Your task to perform on an android device: Search for pizza restaurants on Maps Image 0: 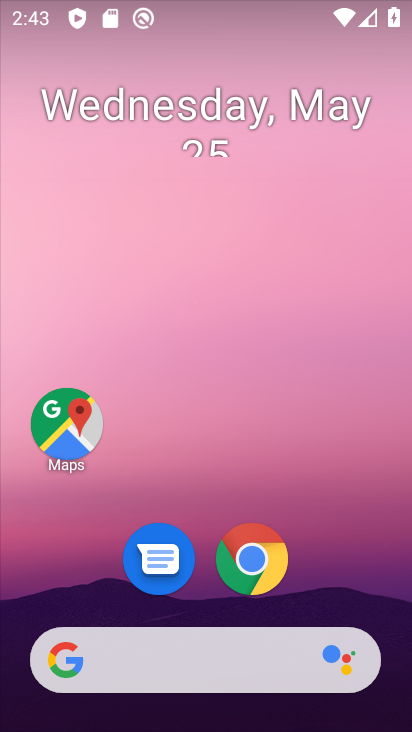
Step 0: click (68, 418)
Your task to perform on an android device: Search for pizza restaurants on Maps Image 1: 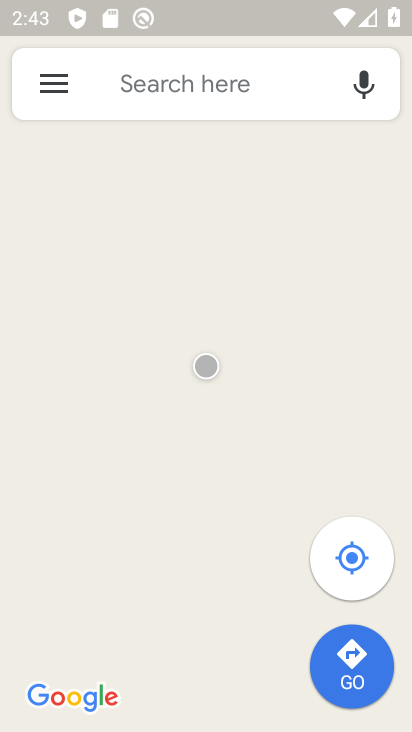
Step 1: click (165, 75)
Your task to perform on an android device: Search for pizza restaurants on Maps Image 2: 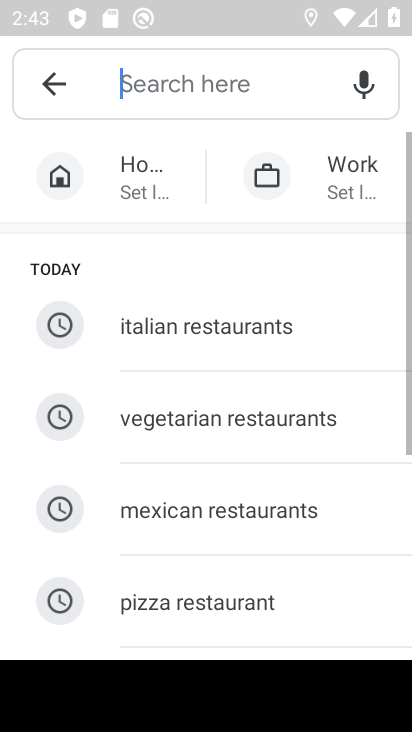
Step 2: type "pizza"
Your task to perform on an android device: Search for pizza restaurants on Maps Image 3: 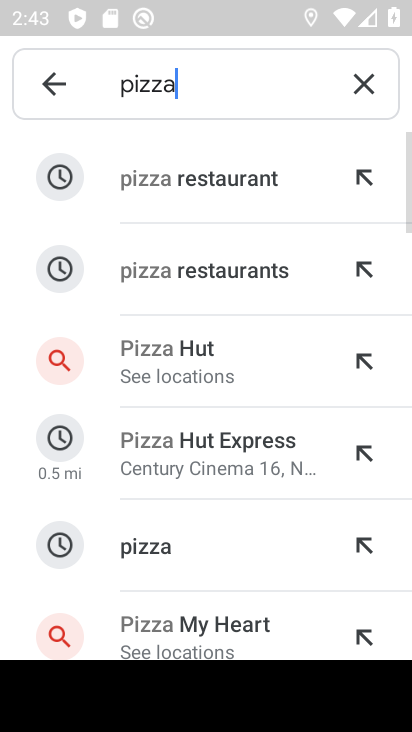
Step 3: click (204, 201)
Your task to perform on an android device: Search for pizza restaurants on Maps Image 4: 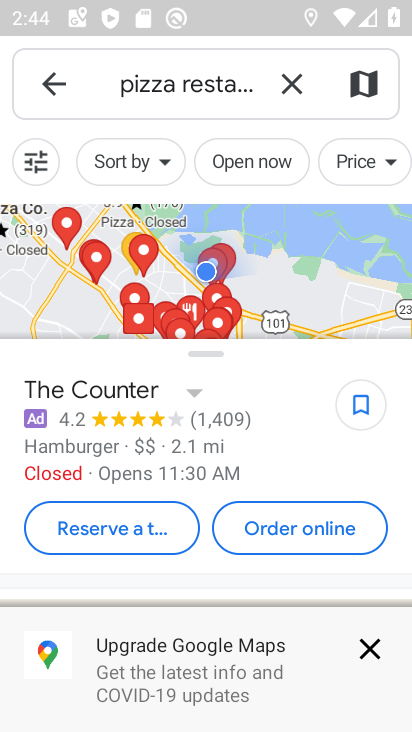
Step 4: click (367, 645)
Your task to perform on an android device: Search for pizza restaurants on Maps Image 5: 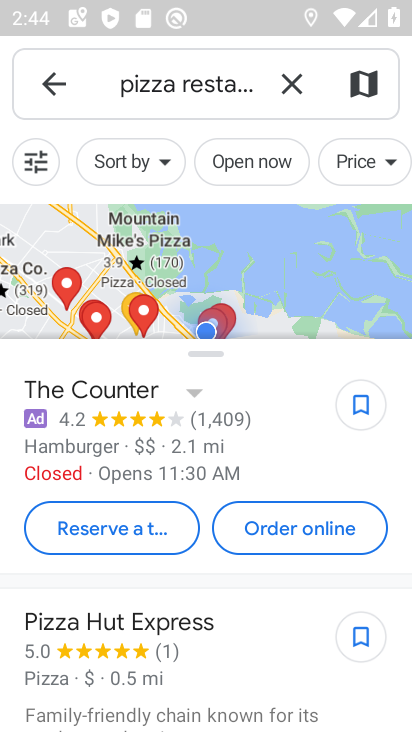
Step 5: task complete